Your task to perform on an android device: toggle airplane mode Image 0: 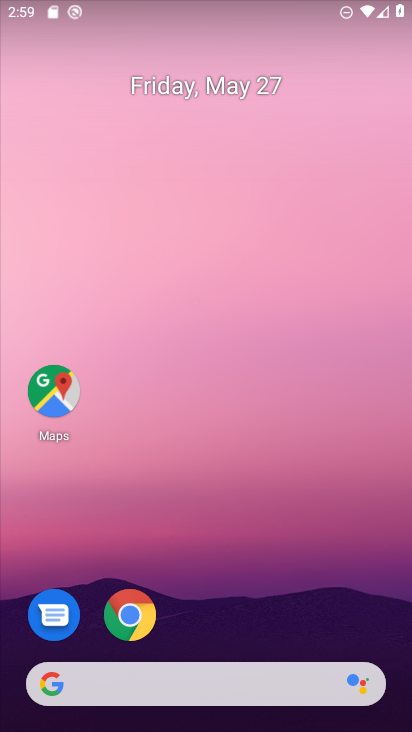
Step 0: drag from (279, 564) to (122, 20)
Your task to perform on an android device: toggle airplane mode Image 1: 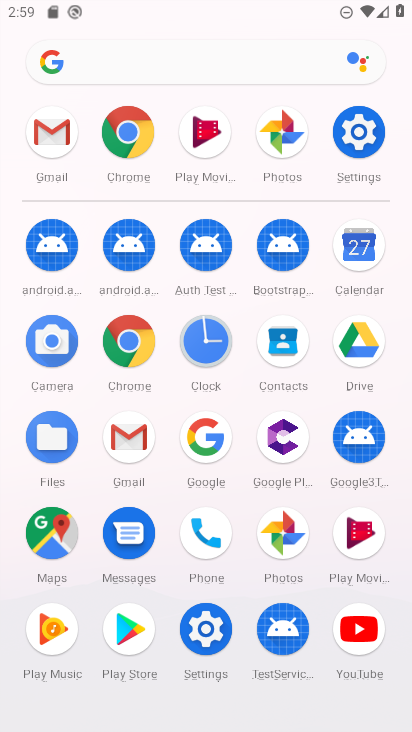
Step 1: click (363, 143)
Your task to perform on an android device: toggle airplane mode Image 2: 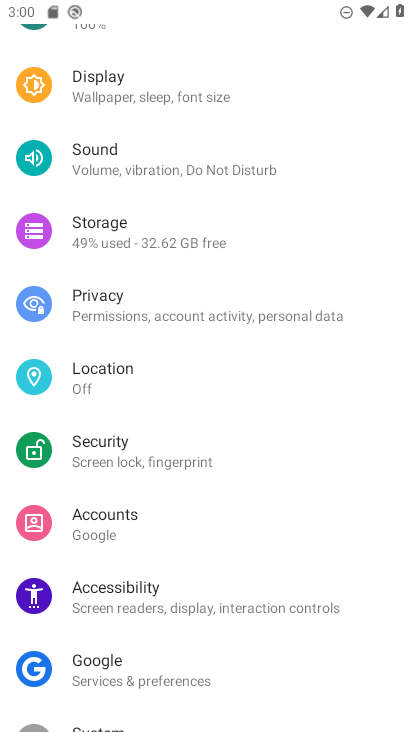
Step 2: drag from (269, 111) to (173, 643)
Your task to perform on an android device: toggle airplane mode Image 3: 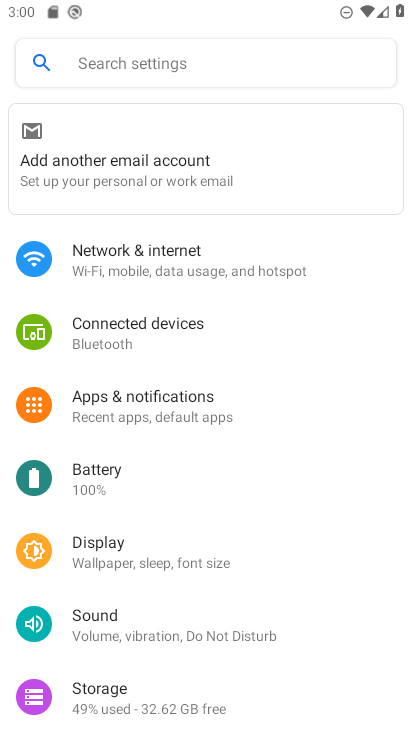
Step 3: click (148, 251)
Your task to perform on an android device: toggle airplane mode Image 4: 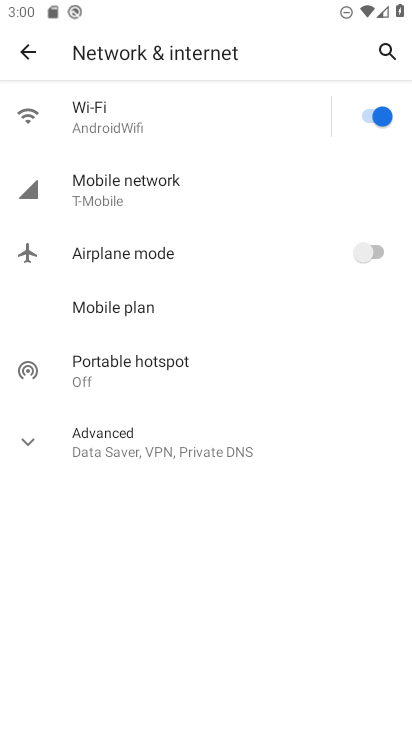
Step 4: click (350, 253)
Your task to perform on an android device: toggle airplane mode Image 5: 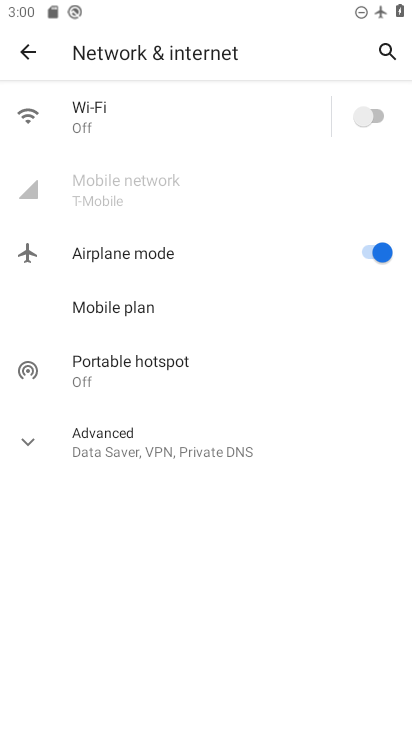
Step 5: task complete